Your task to perform on an android device: Go to Maps Image 0: 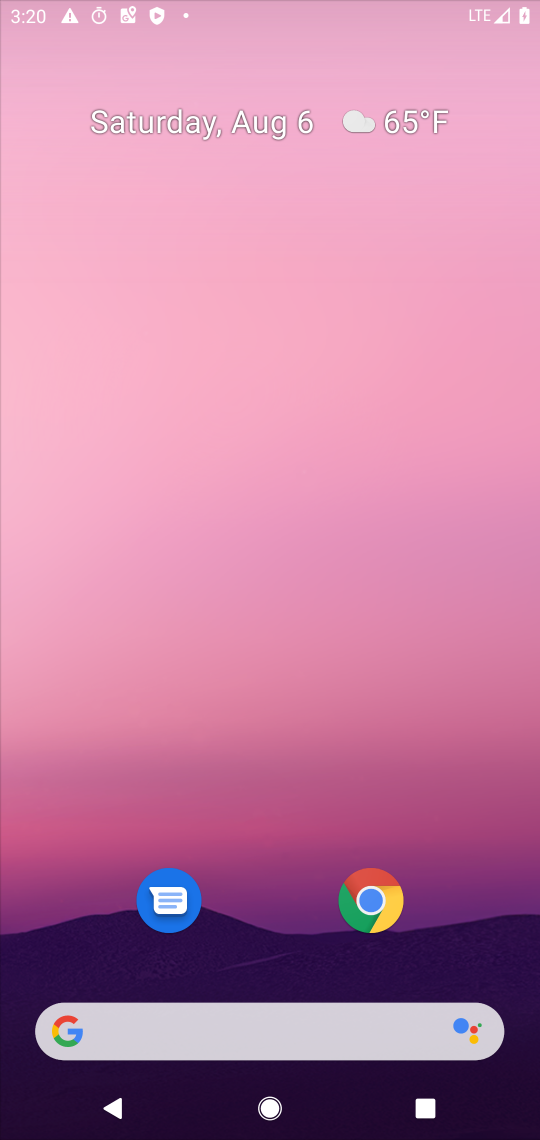
Step 0: press home button
Your task to perform on an android device: Go to Maps Image 1: 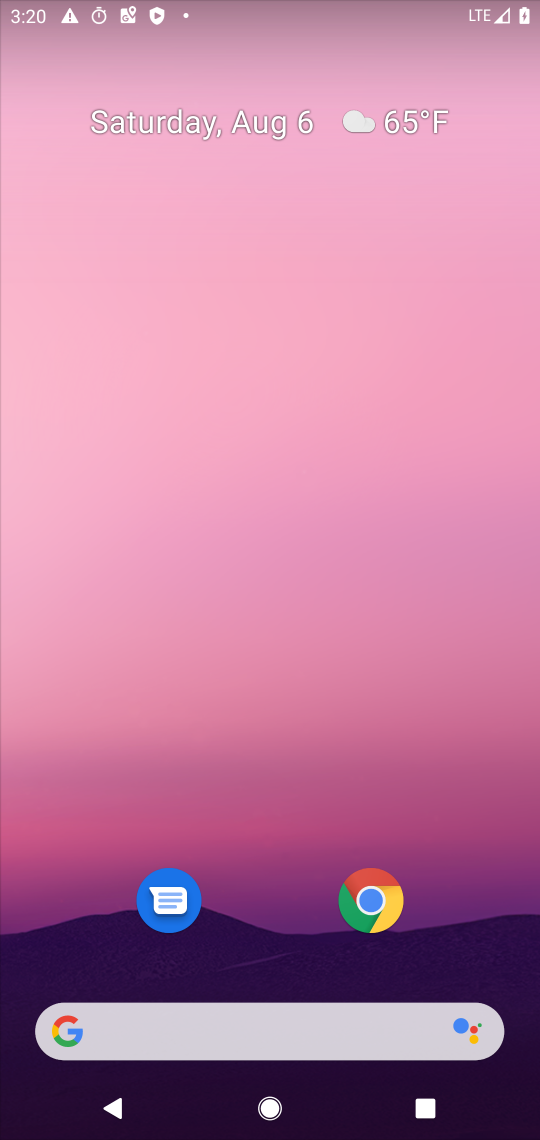
Step 1: drag from (260, 908) to (261, 136)
Your task to perform on an android device: Go to Maps Image 2: 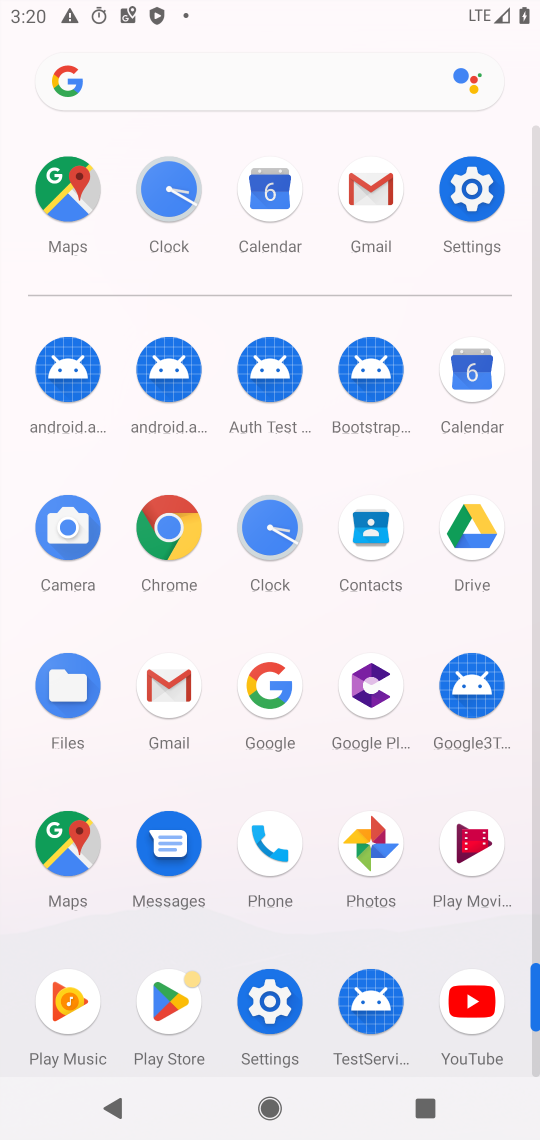
Step 2: click (55, 838)
Your task to perform on an android device: Go to Maps Image 3: 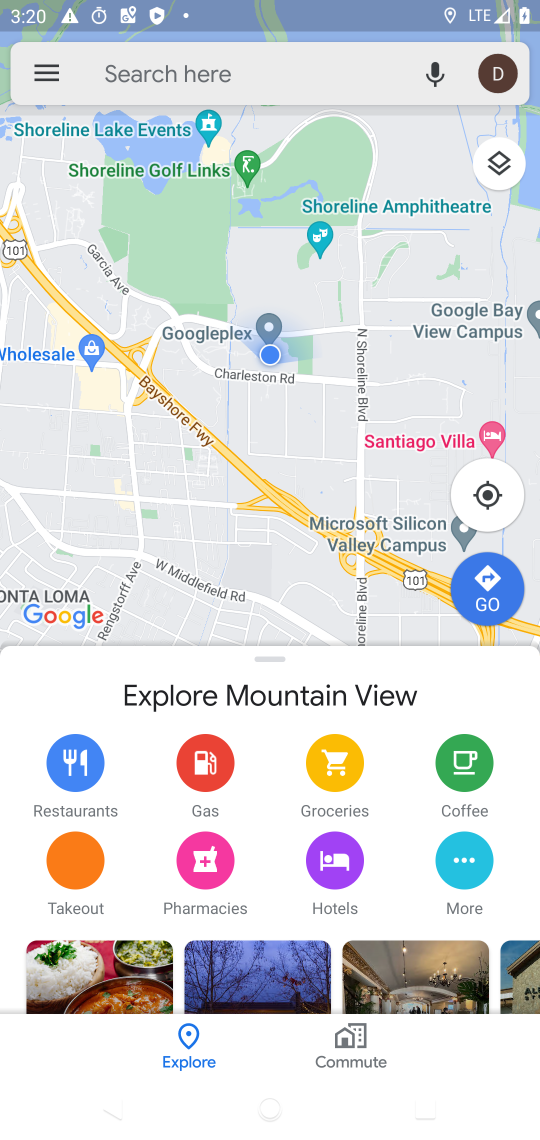
Step 3: task complete